Your task to perform on an android device: change notifications settings Image 0: 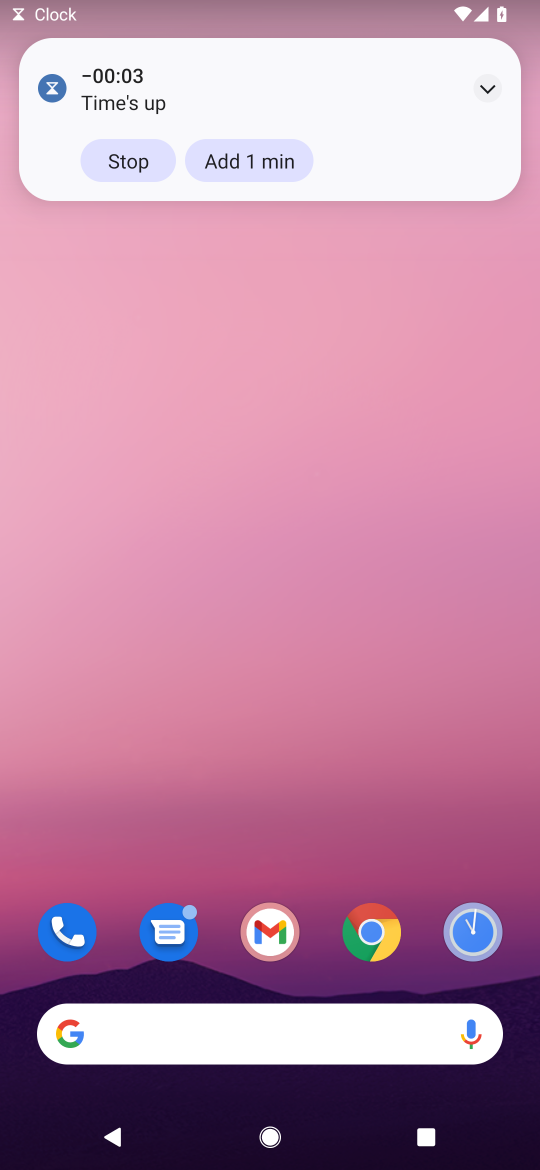
Step 0: click (113, 143)
Your task to perform on an android device: change notifications settings Image 1: 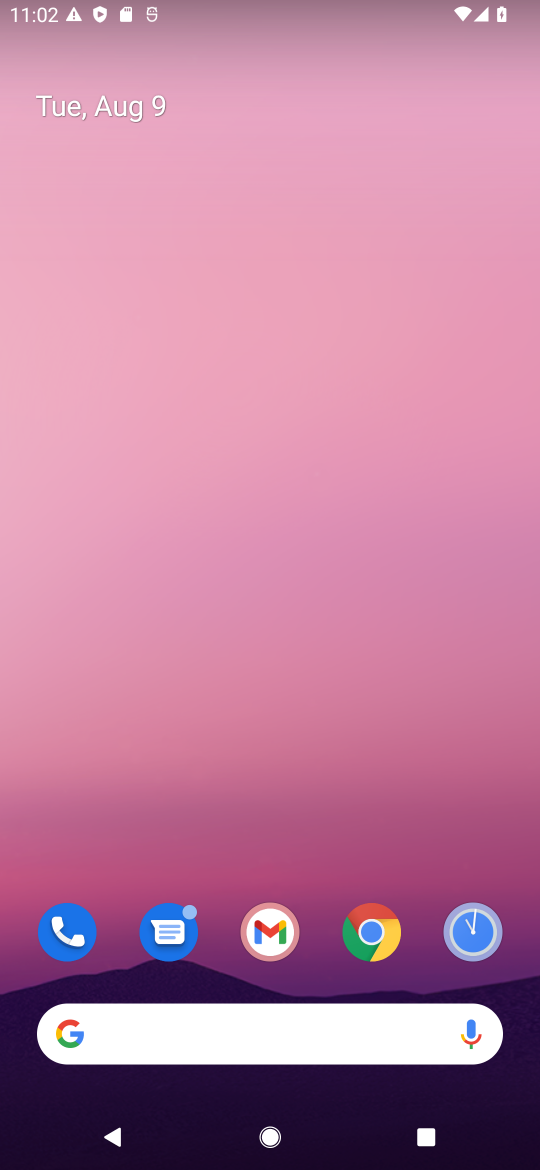
Step 1: drag from (246, 991) to (266, 545)
Your task to perform on an android device: change notifications settings Image 2: 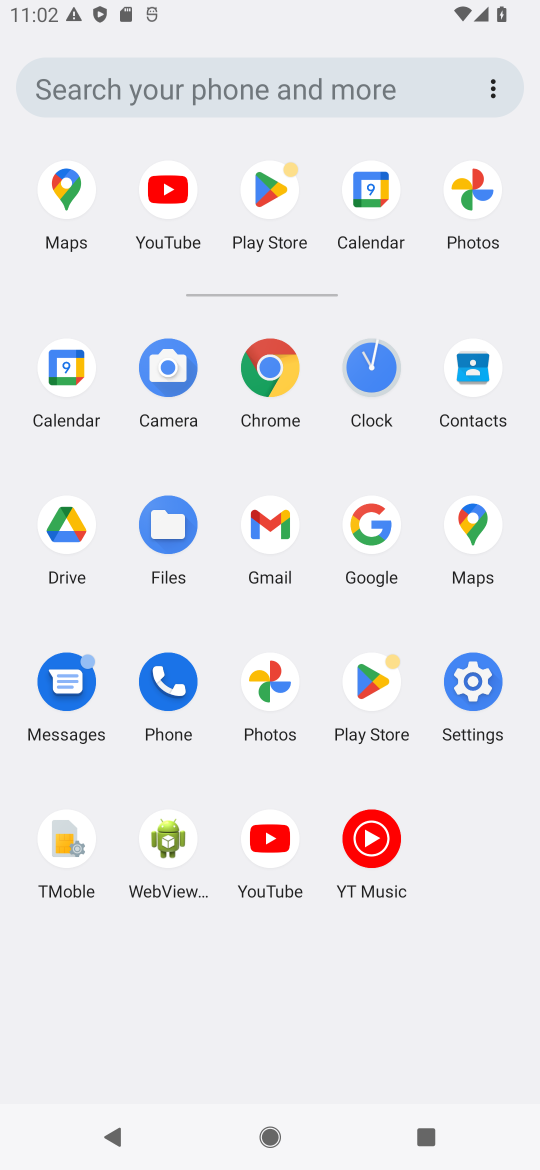
Step 2: click (479, 706)
Your task to perform on an android device: change notifications settings Image 3: 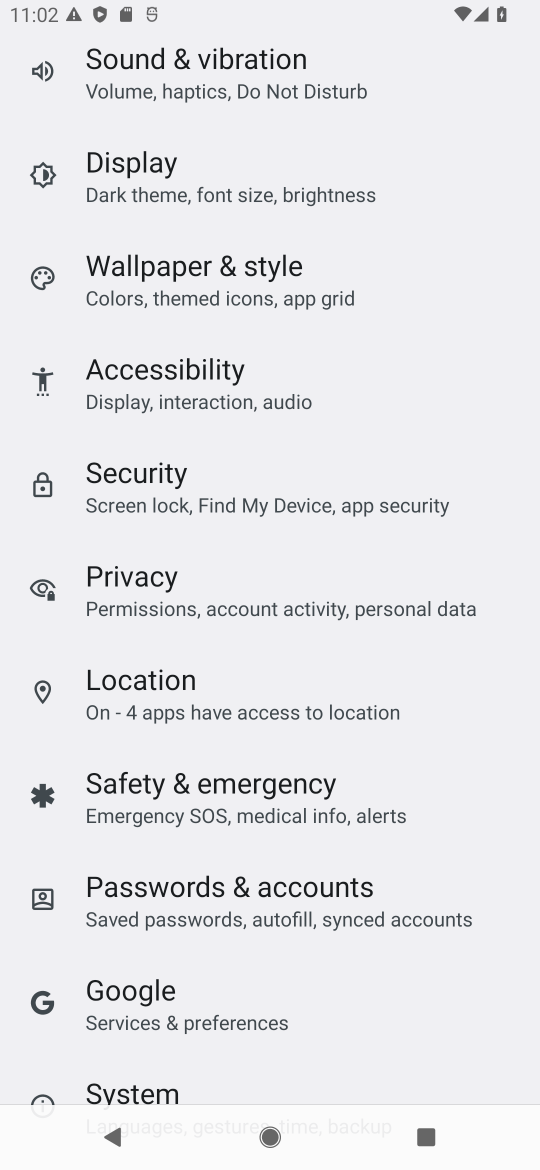
Step 3: drag from (243, 473) to (192, 1128)
Your task to perform on an android device: change notifications settings Image 4: 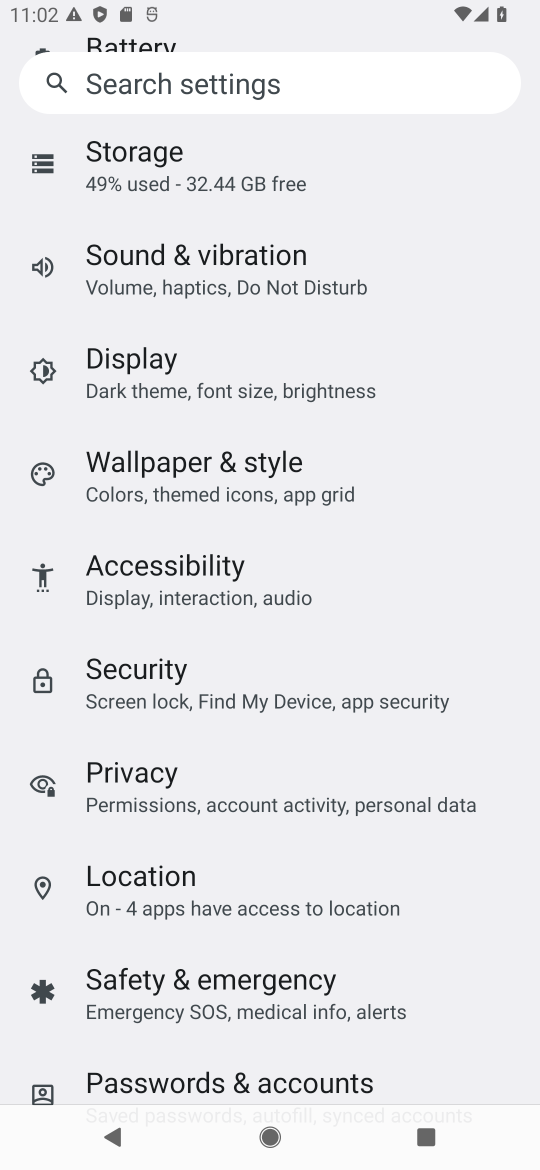
Step 4: click (268, 619)
Your task to perform on an android device: change notifications settings Image 5: 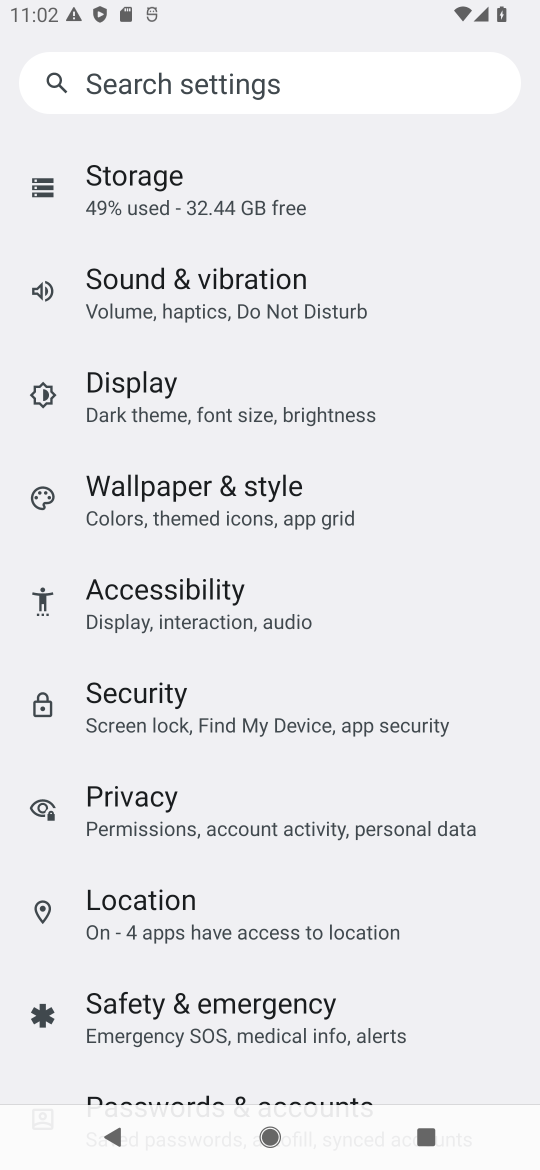
Step 5: drag from (267, 501) to (262, 991)
Your task to perform on an android device: change notifications settings Image 6: 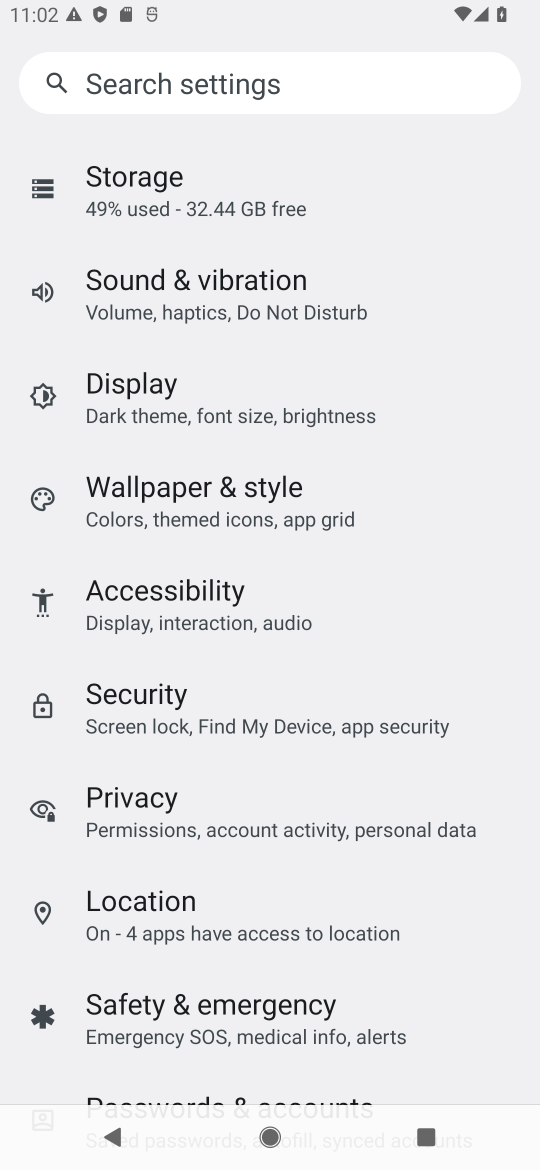
Step 6: drag from (288, 337) to (278, 843)
Your task to perform on an android device: change notifications settings Image 7: 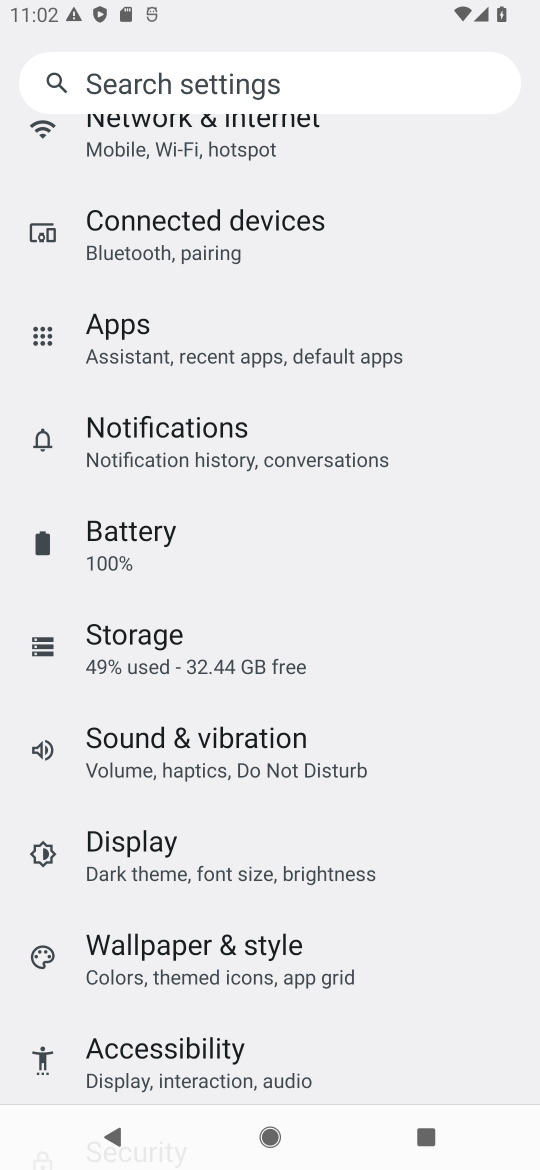
Step 7: drag from (243, 364) to (222, 993)
Your task to perform on an android device: change notifications settings Image 8: 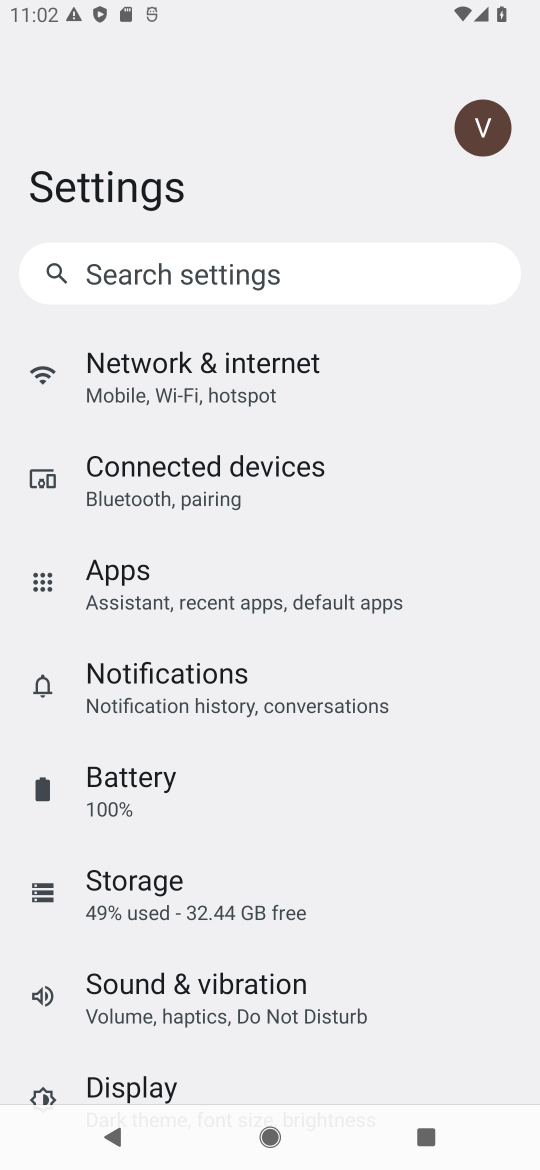
Step 8: click (193, 694)
Your task to perform on an android device: change notifications settings Image 9: 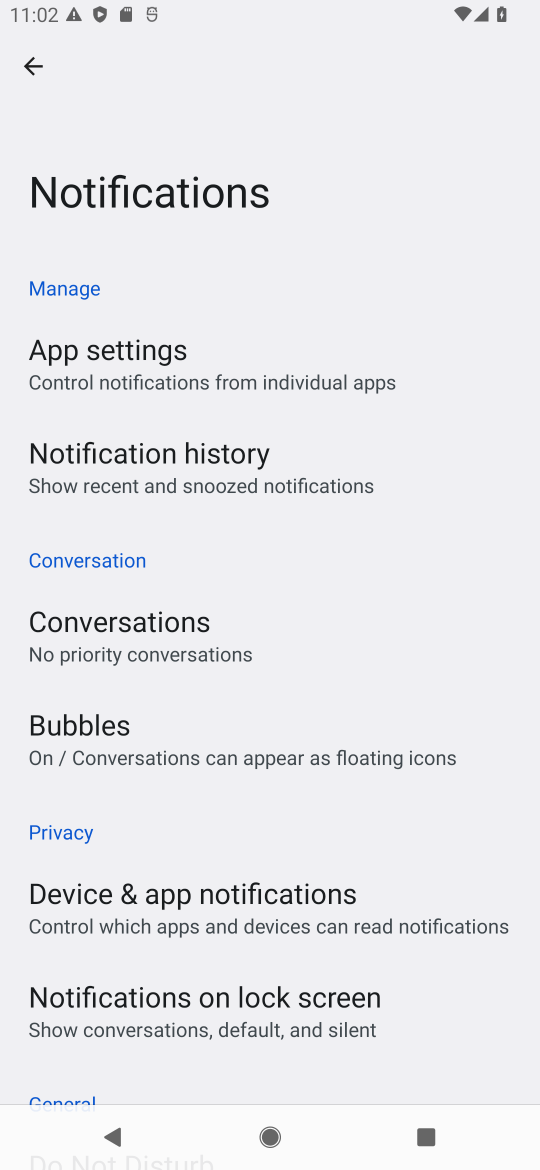
Step 9: click (168, 368)
Your task to perform on an android device: change notifications settings Image 10: 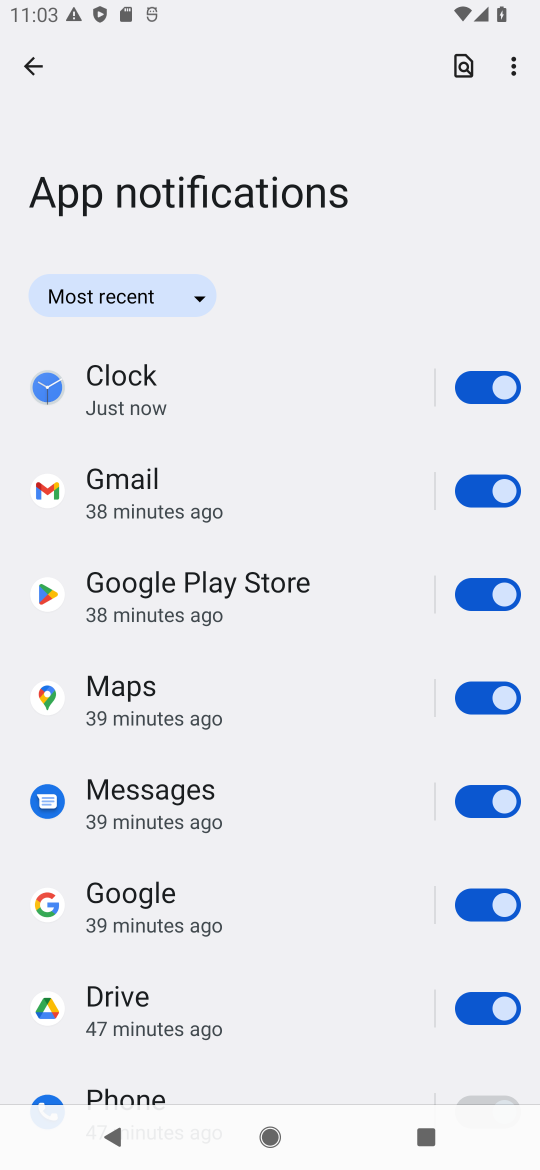
Step 10: click (475, 376)
Your task to perform on an android device: change notifications settings Image 11: 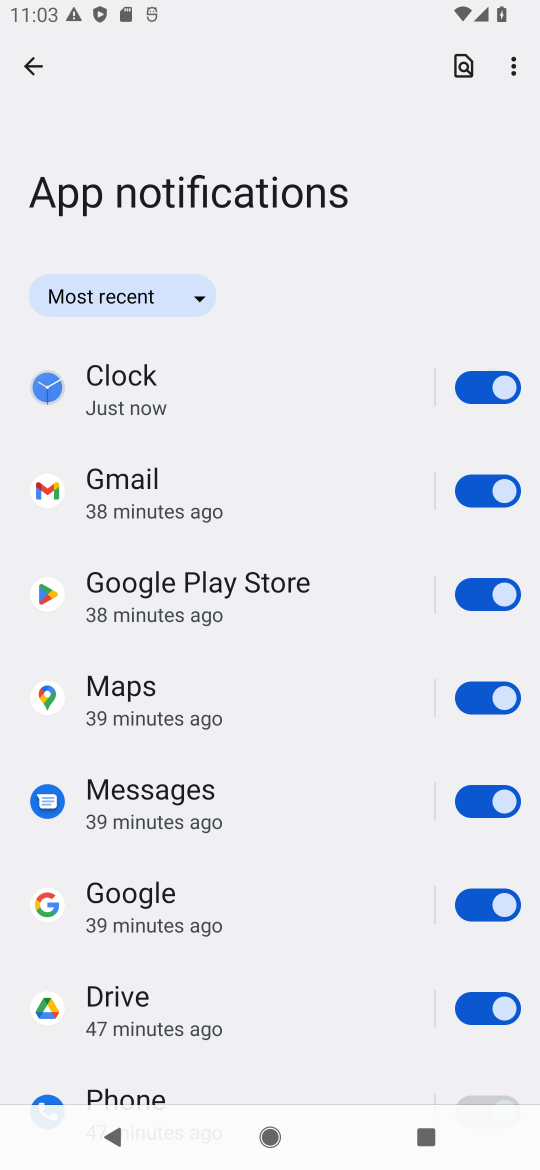
Step 11: click (454, 481)
Your task to perform on an android device: change notifications settings Image 12: 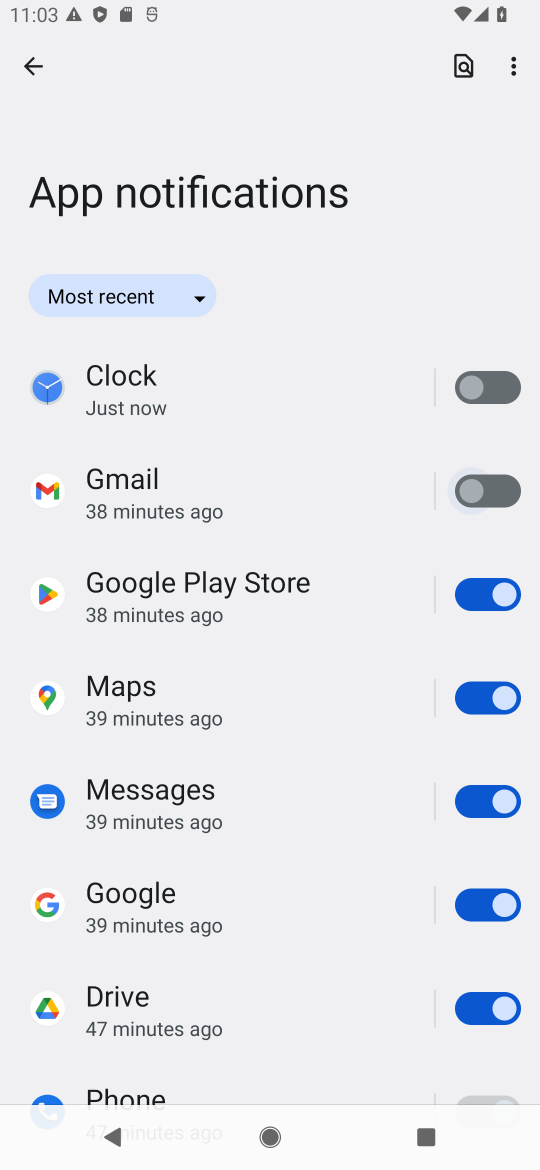
Step 12: click (443, 591)
Your task to perform on an android device: change notifications settings Image 13: 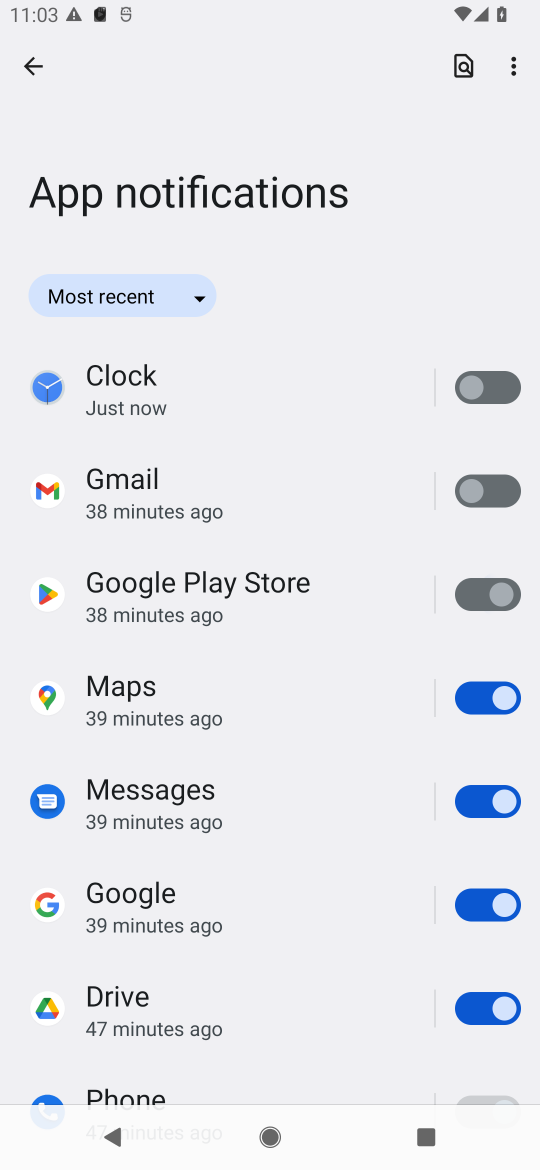
Step 13: click (463, 700)
Your task to perform on an android device: change notifications settings Image 14: 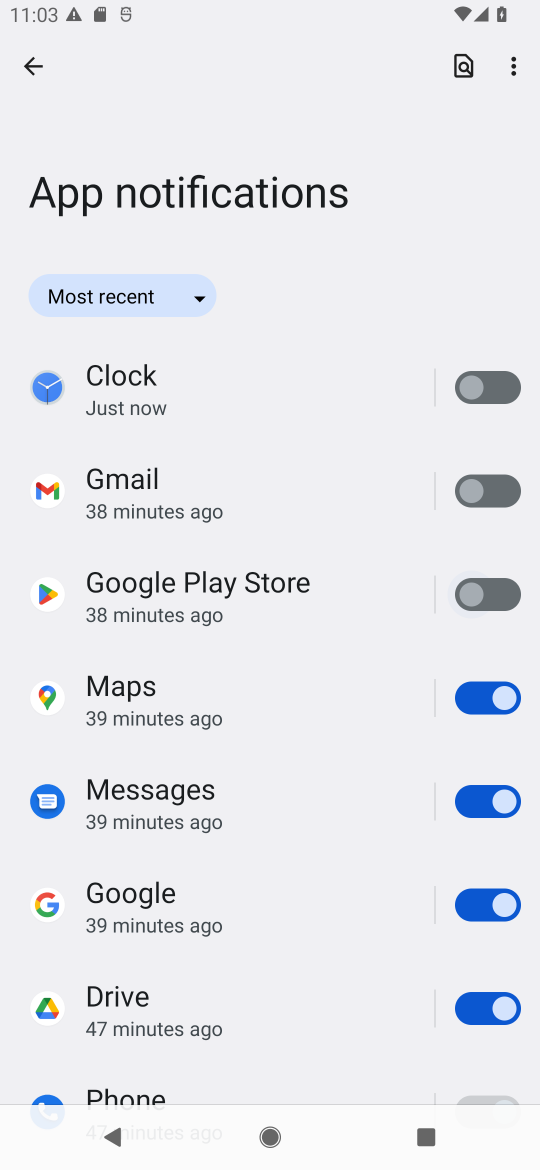
Step 14: click (459, 802)
Your task to perform on an android device: change notifications settings Image 15: 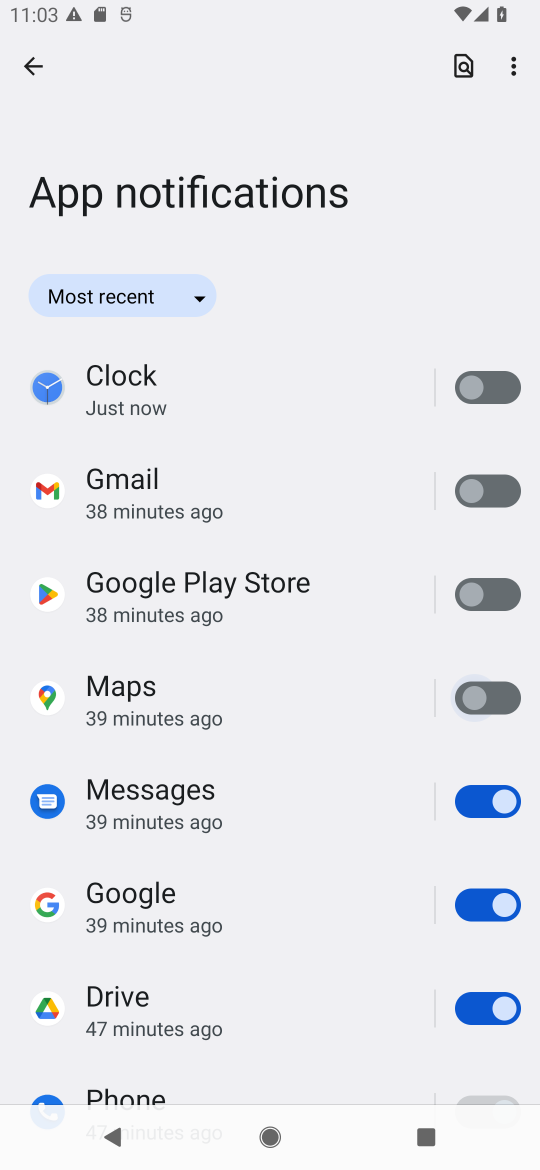
Step 15: click (453, 924)
Your task to perform on an android device: change notifications settings Image 16: 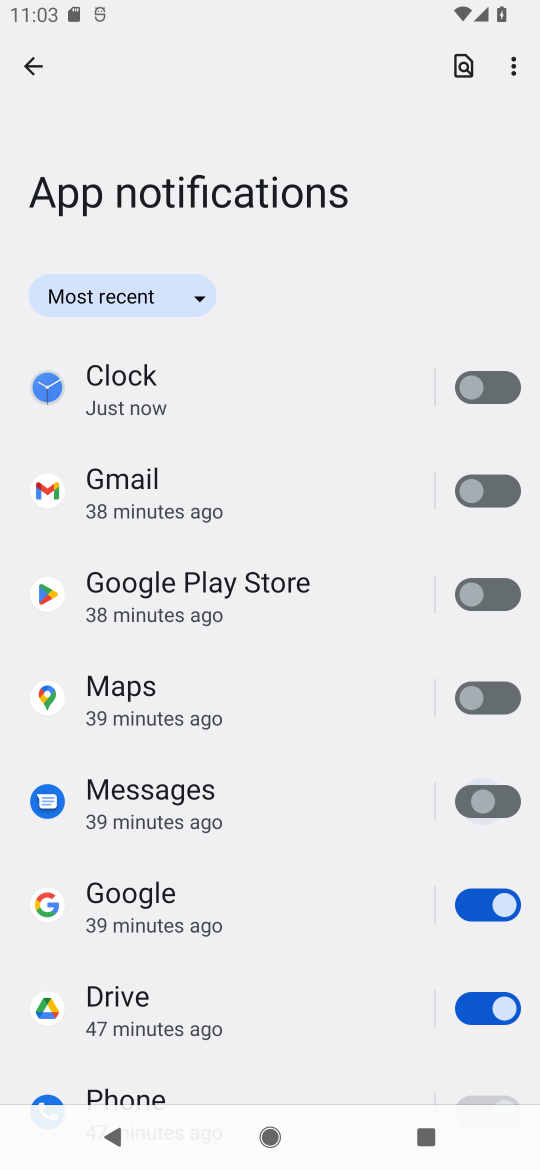
Step 16: click (452, 1018)
Your task to perform on an android device: change notifications settings Image 17: 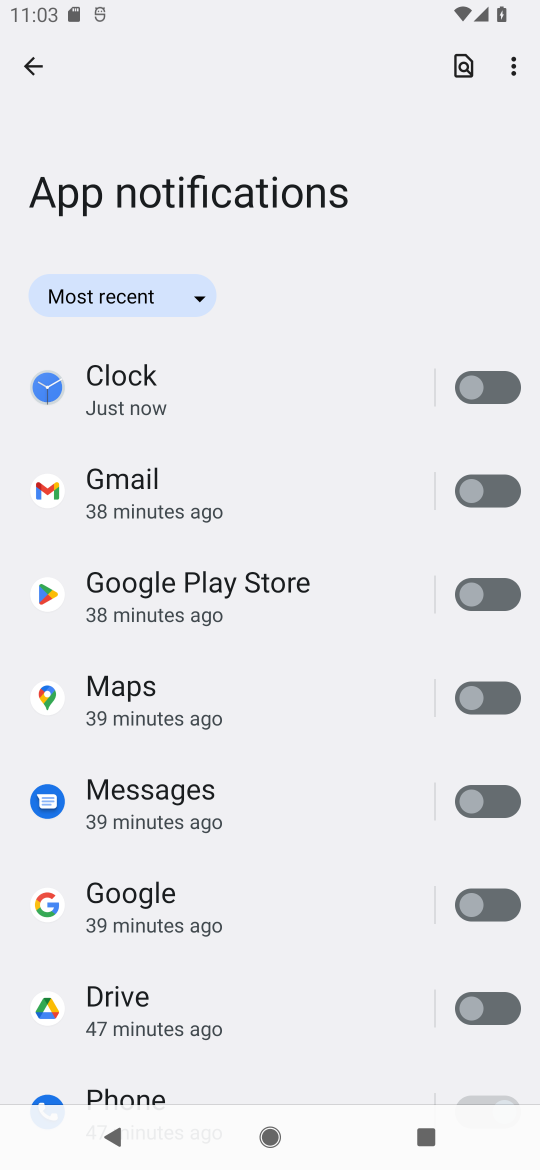
Step 17: drag from (344, 970) to (361, 366)
Your task to perform on an android device: change notifications settings Image 18: 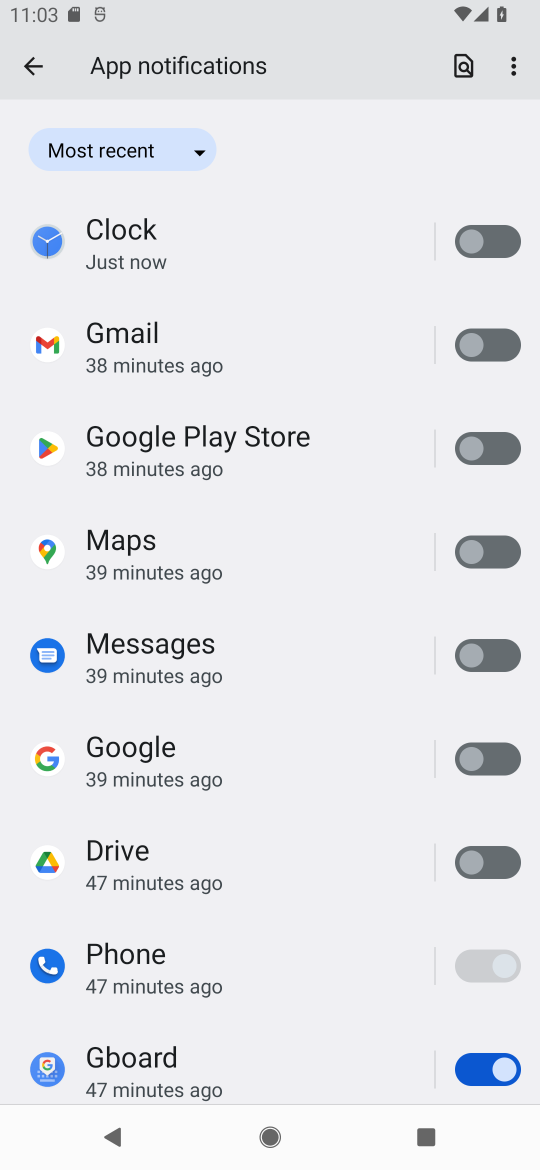
Step 18: click (466, 1055)
Your task to perform on an android device: change notifications settings Image 19: 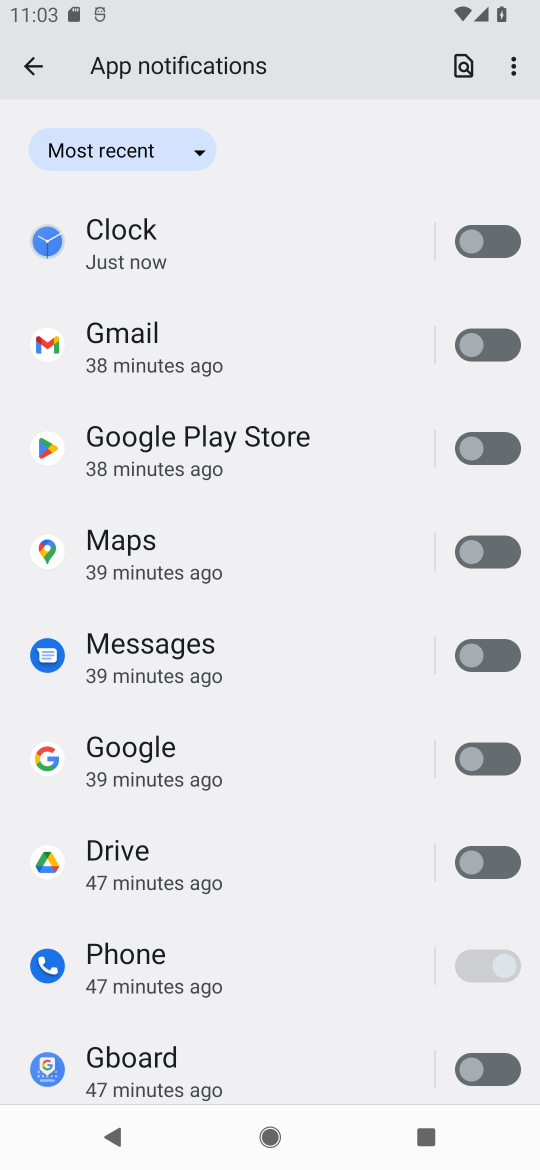
Step 19: task complete